Your task to perform on an android device: open app "PUBG MOBILE" (install if not already installed), go to login, and select forgot password Image 0: 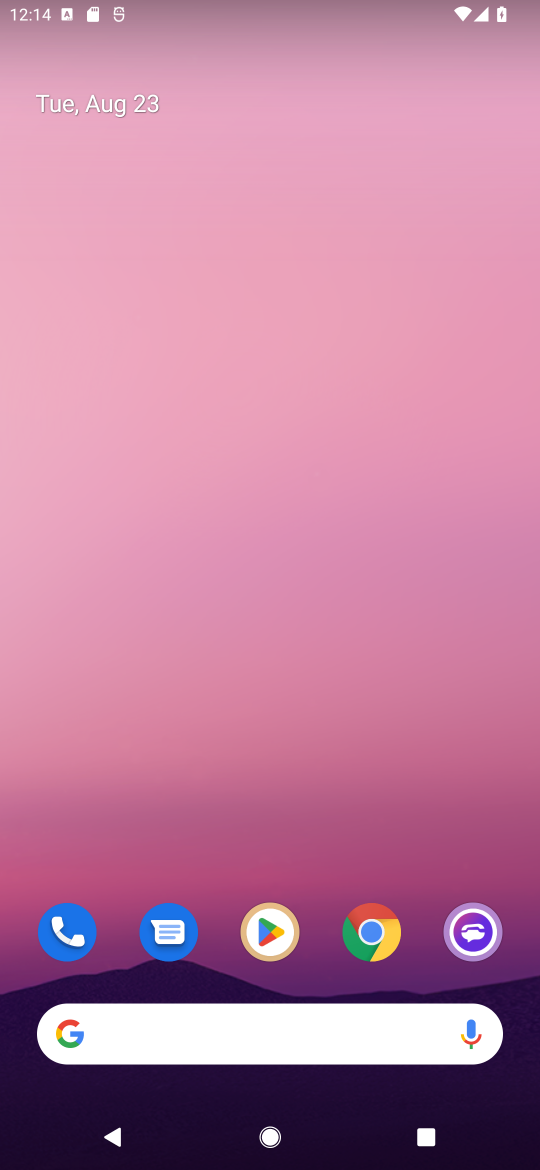
Step 0: click (274, 926)
Your task to perform on an android device: open app "PUBG MOBILE" (install if not already installed), go to login, and select forgot password Image 1: 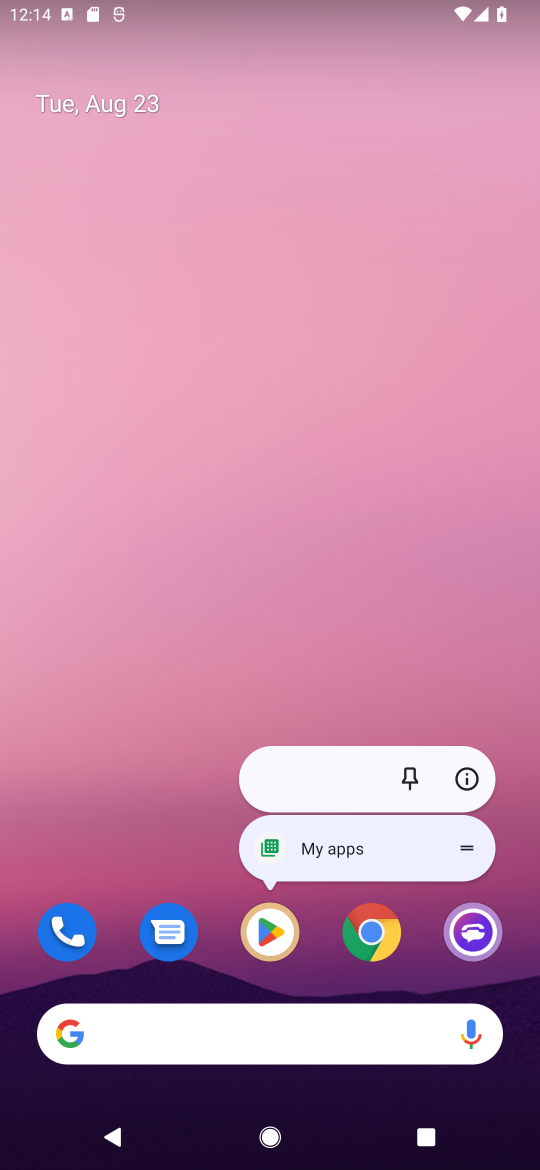
Step 1: click (271, 926)
Your task to perform on an android device: open app "PUBG MOBILE" (install if not already installed), go to login, and select forgot password Image 2: 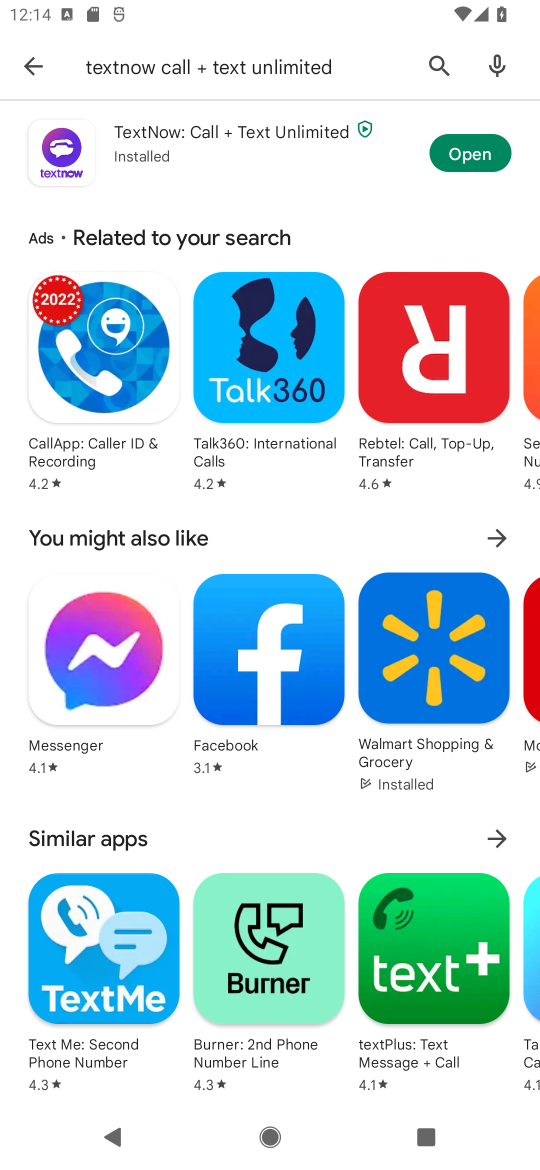
Step 2: click (427, 61)
Your task to perform on an android device: open app "PUBG MOBILE" (install if not already installed), go to login, and select forgot password Image 3: 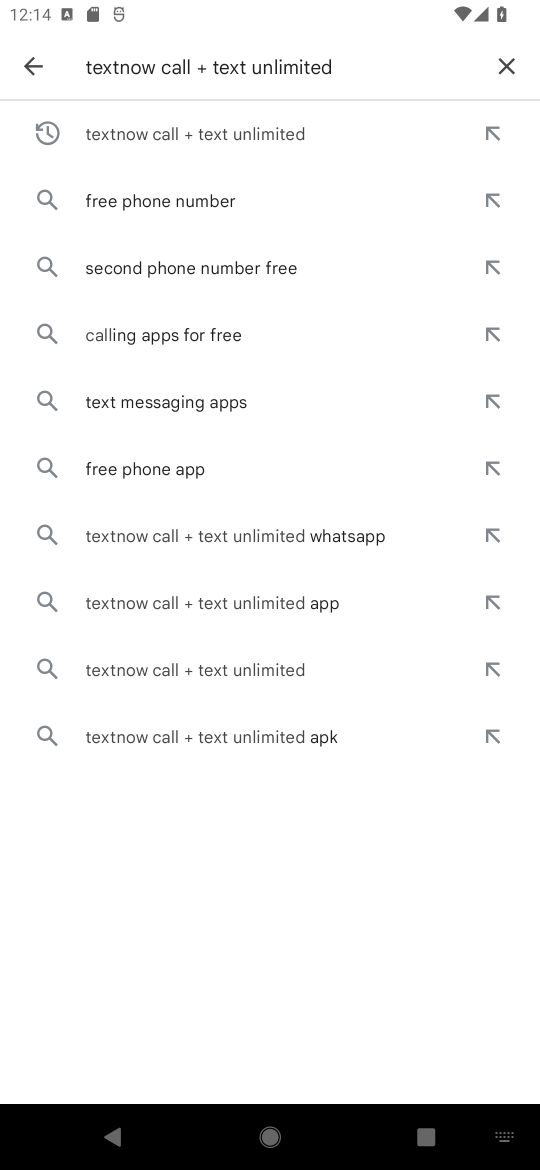
Step 3: click (221, 123)
Your task to perform on an android device: open app "PUBG MOBILE" (install if not already installed), go to login, and select forgot password Image 4: 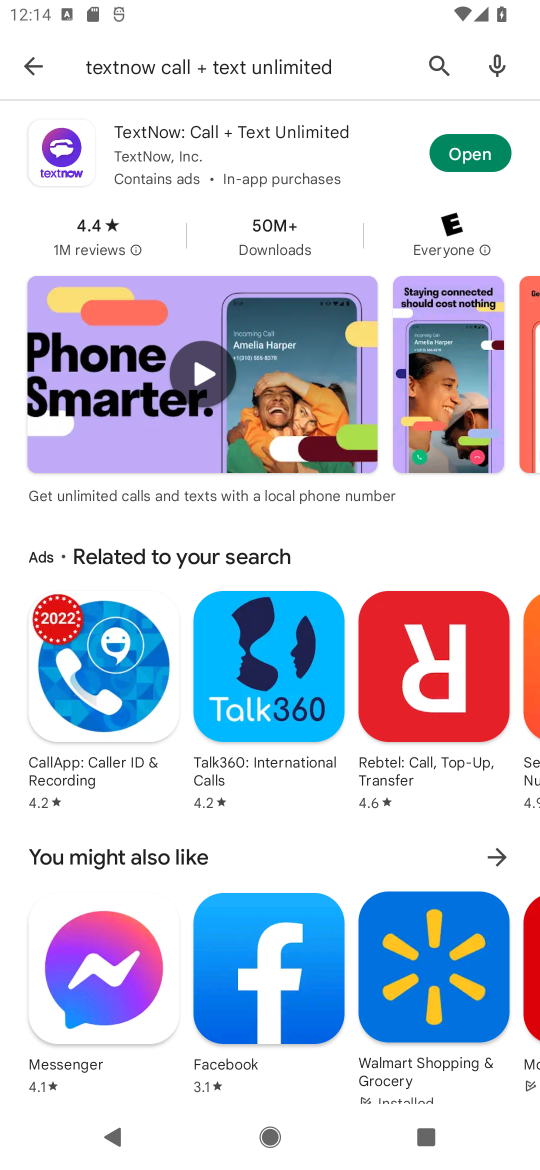
Step 4: click (427, 59)
Your task to perform on an android device: open app "PUBG MOBILE" (install if not already installed), go to login, and select forgot password Image 5: 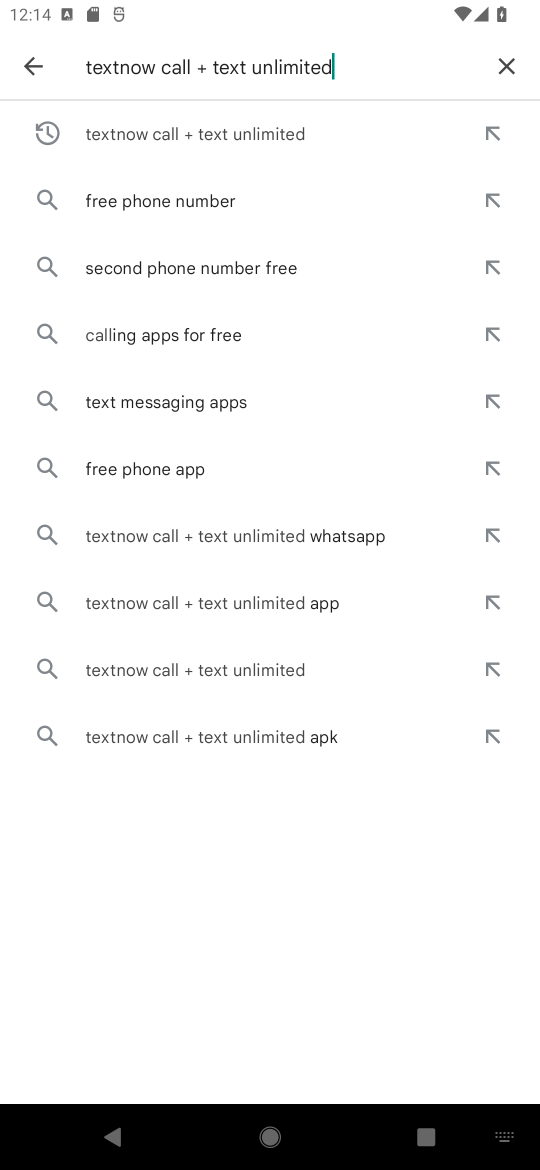
Step 5: click (507, 58)
Your task to perform on an android device: open app "PUBG MOBILE" (install if not already installed), go to login, and select forgot password Image 6: 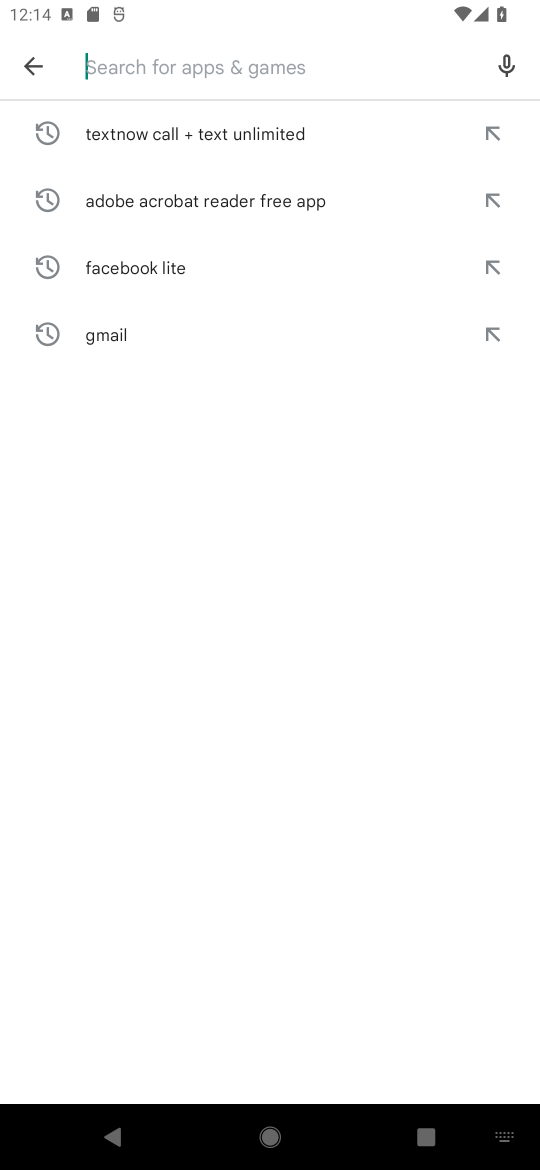
Step 6: click (155, 75)
Your task to perform on an android device: open app "PUBG MOBILE" (install if not already installed), go to login, and select forgot password Image 7: 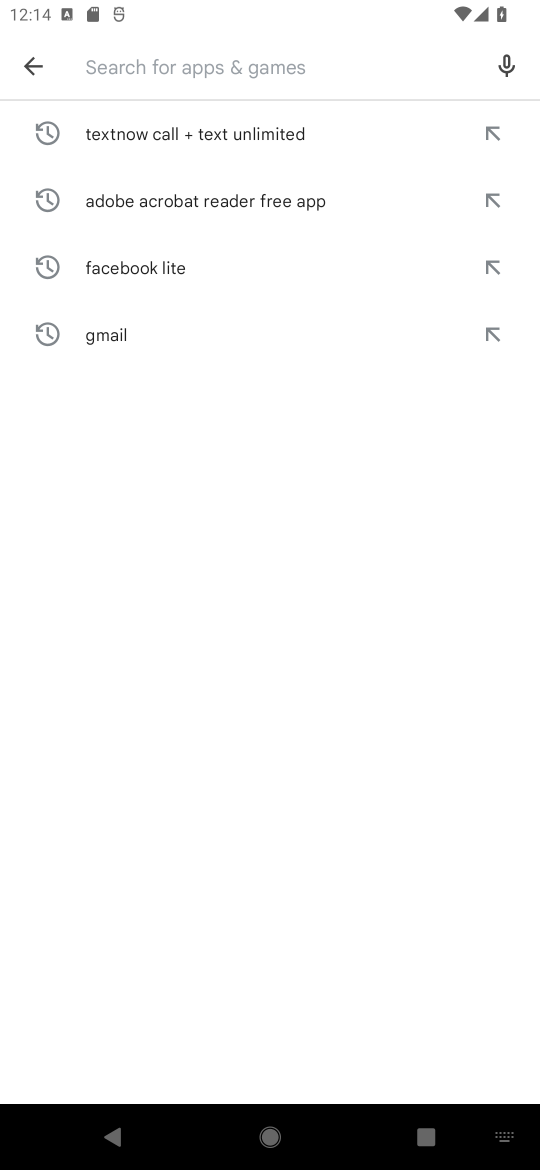
Step 7: type "PUBG MOBILE"
Your task to perform on an android device: open app "PUBG MOBILE" (install if not already installed), go to login, and select forgot password Image 8: 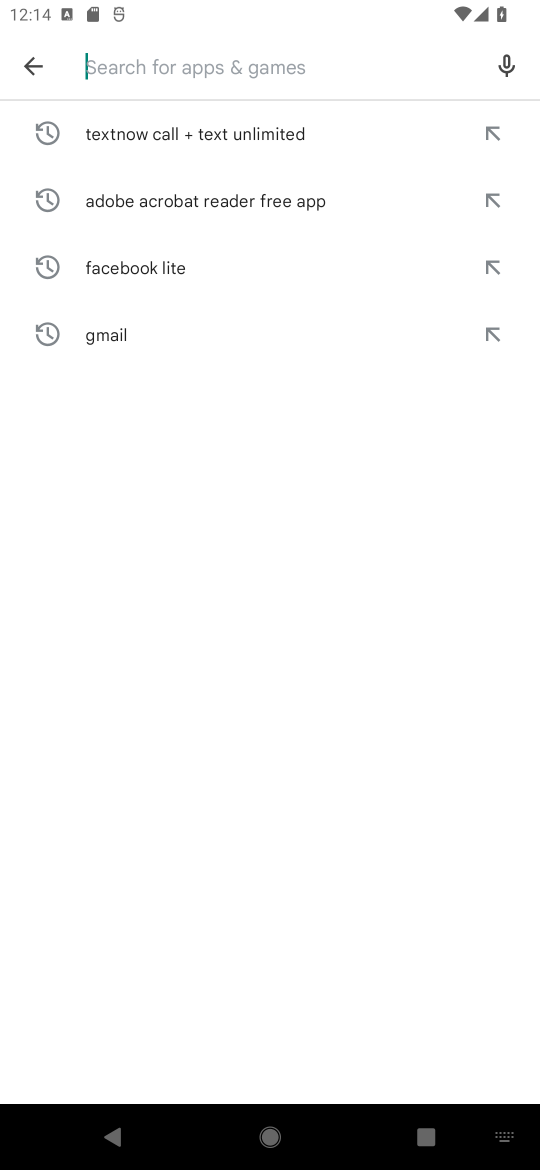
Step 8: click (247, 710)
Your task to perform on an android device: open app "PUBG MOBILE" (install if not already installed), go to login, and select forgot password Image 9: 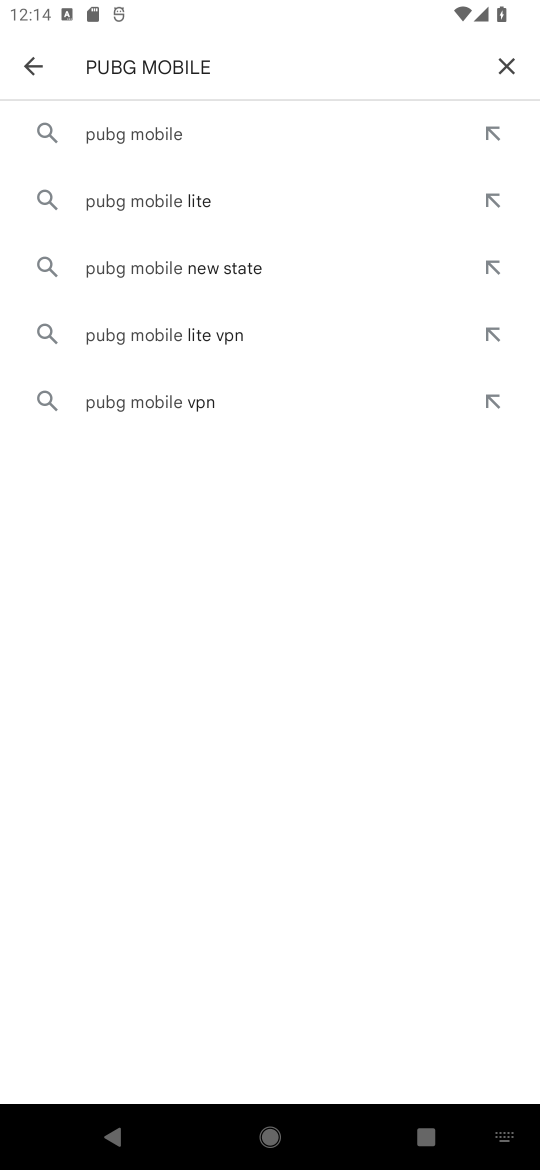
Step 9: click (195, 130)
Your task to perform on an android device: open app "PUBG MOBILE" (install if not already installed), go to login, and select forgot password Image 10: 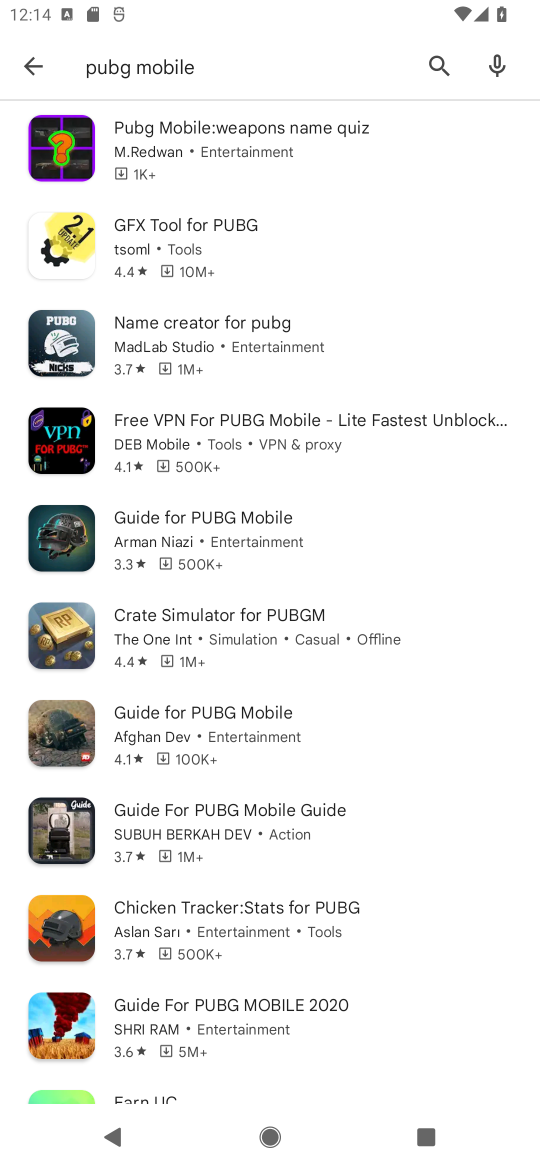
Step 10: task complete